Your task to perform on an android device: Is it going to rain this weekend? Image 0: 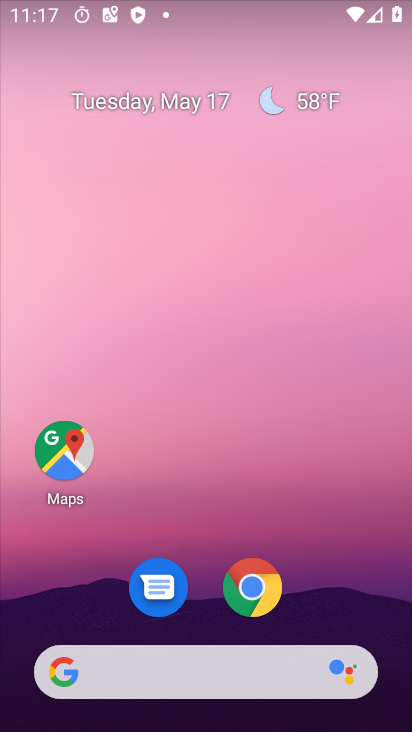
Step 0: drag from (325, 599) to (262, 279)
Your task to perform on an android device: Is it going to rain this weekend? Image 1: 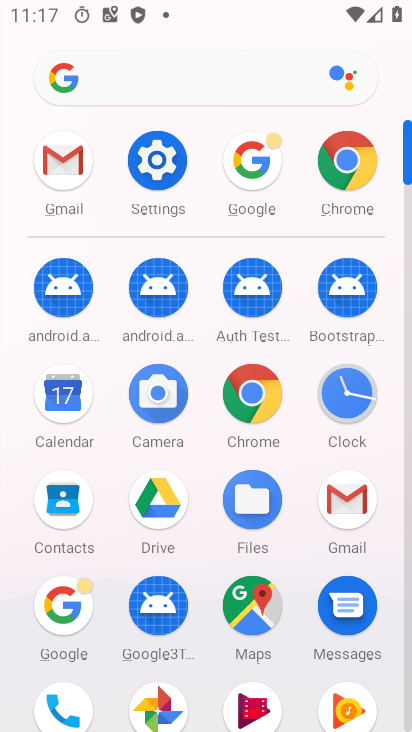
Step 1: click (248, 159)
Your task to perform on an android device: Is it going to rain this weekend? Image 2: 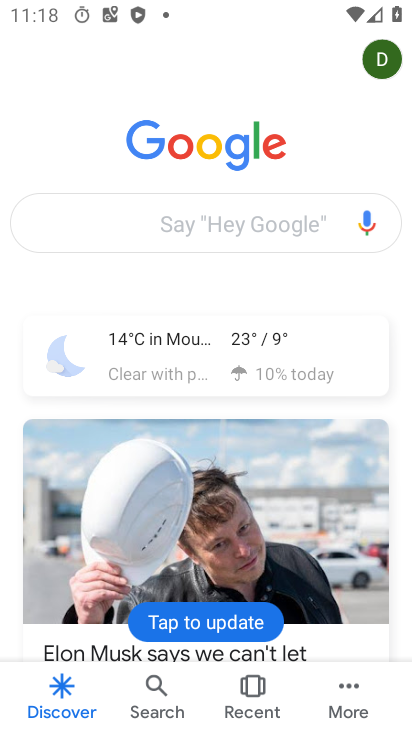
Step 2: click (214, 218)
Your task to perform on an android device: Is it going to rain this weekend? Image 3: 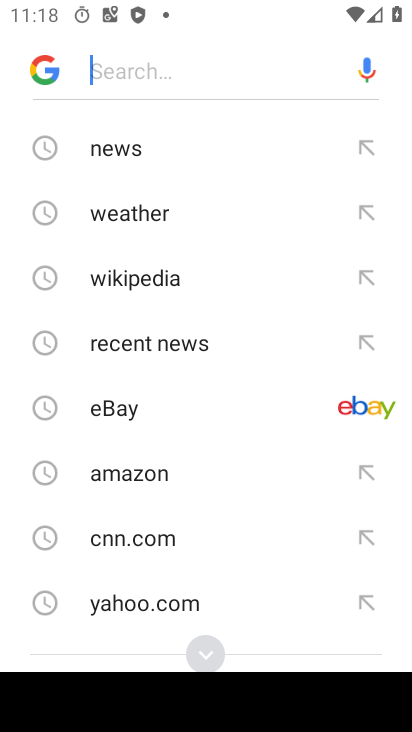
Step 3: type "Is it going tobrain this weekend"
Your task to perform on an android device: Is it going to rain this weekend? Image 4: 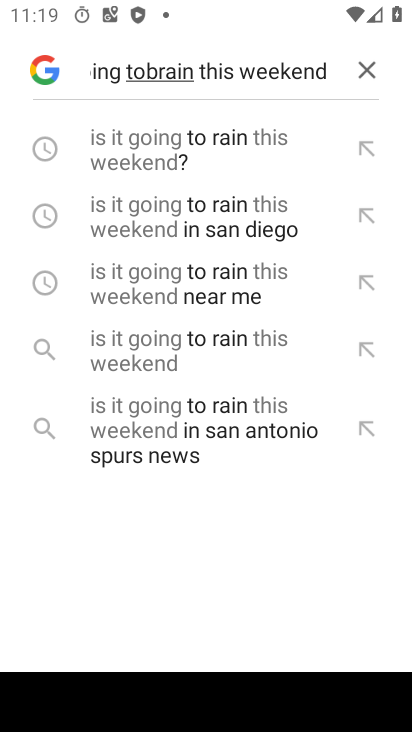
Step 4: click (139, 151)
Your task to perform on an android device: Is it going to rain this weekend? Image 5: 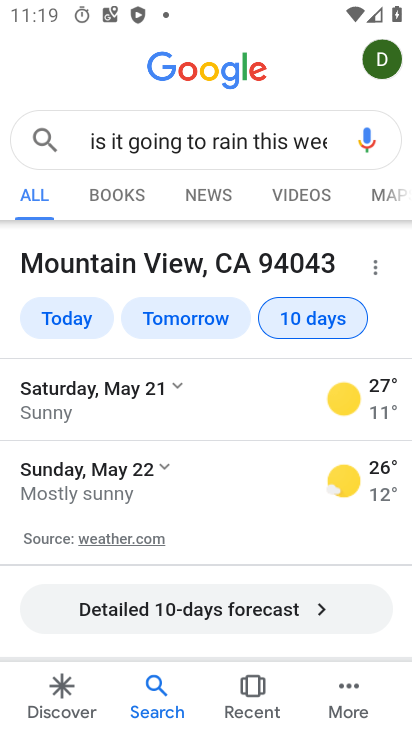
Step 5: task complete